Your task to perform on an android device: How big is the moon? Image 0: 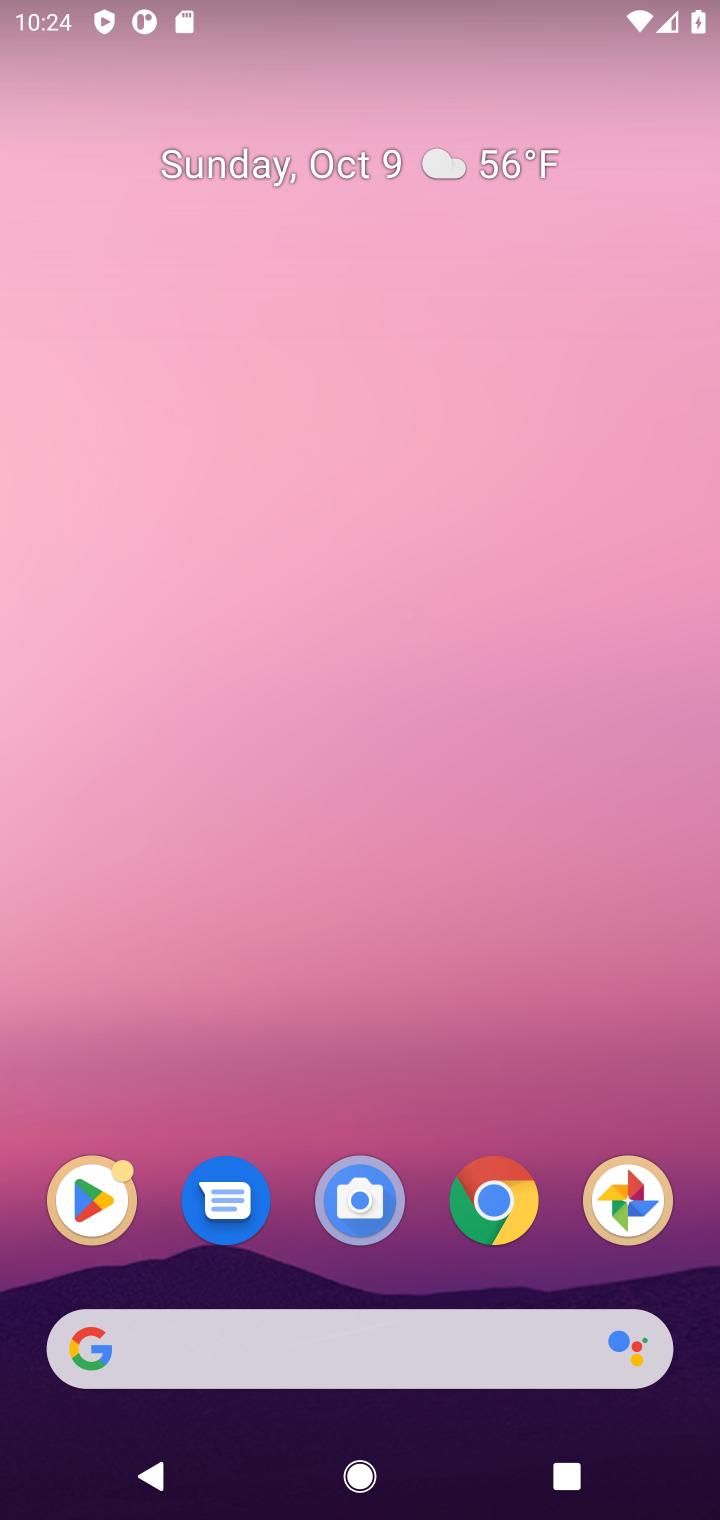
Step 0: drag from (442, 1321) to (411, 321)
Your task to perform on an android device: How big is the moon? Image 1: 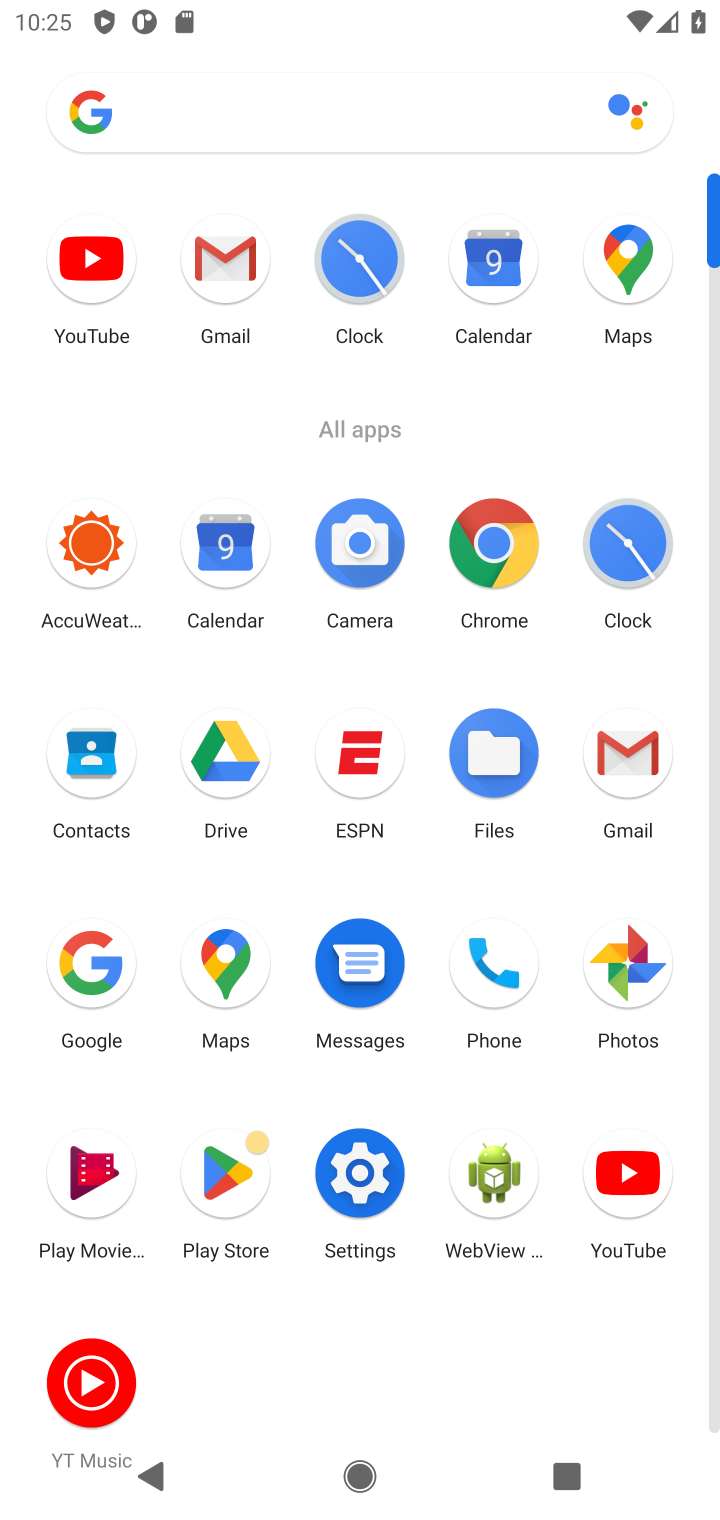
Step 1: click (476, 553)
Your task to perform on an android device: How big is the moon? Image 2: 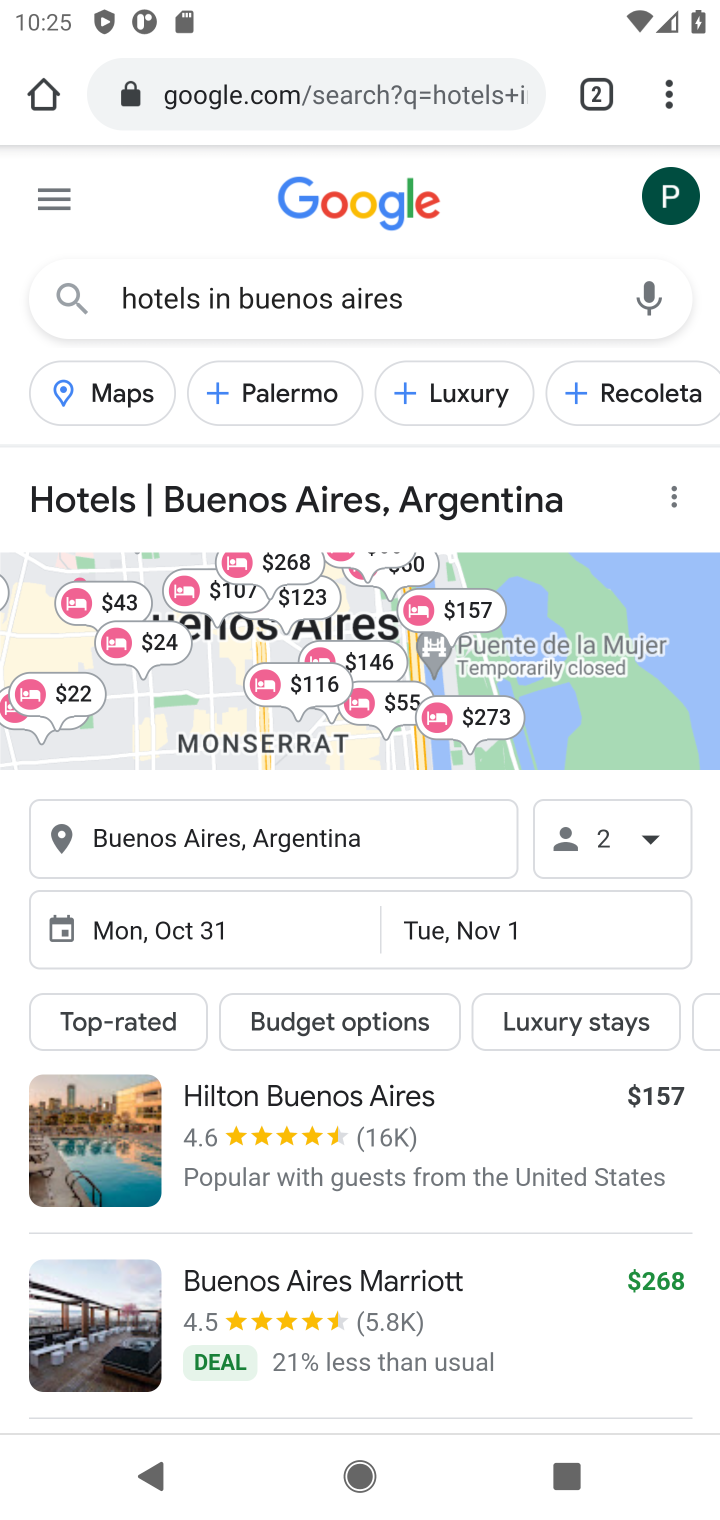
Step 2: click (397, 287)
Your task to perform on an android device: How big is the moon? Image 3: 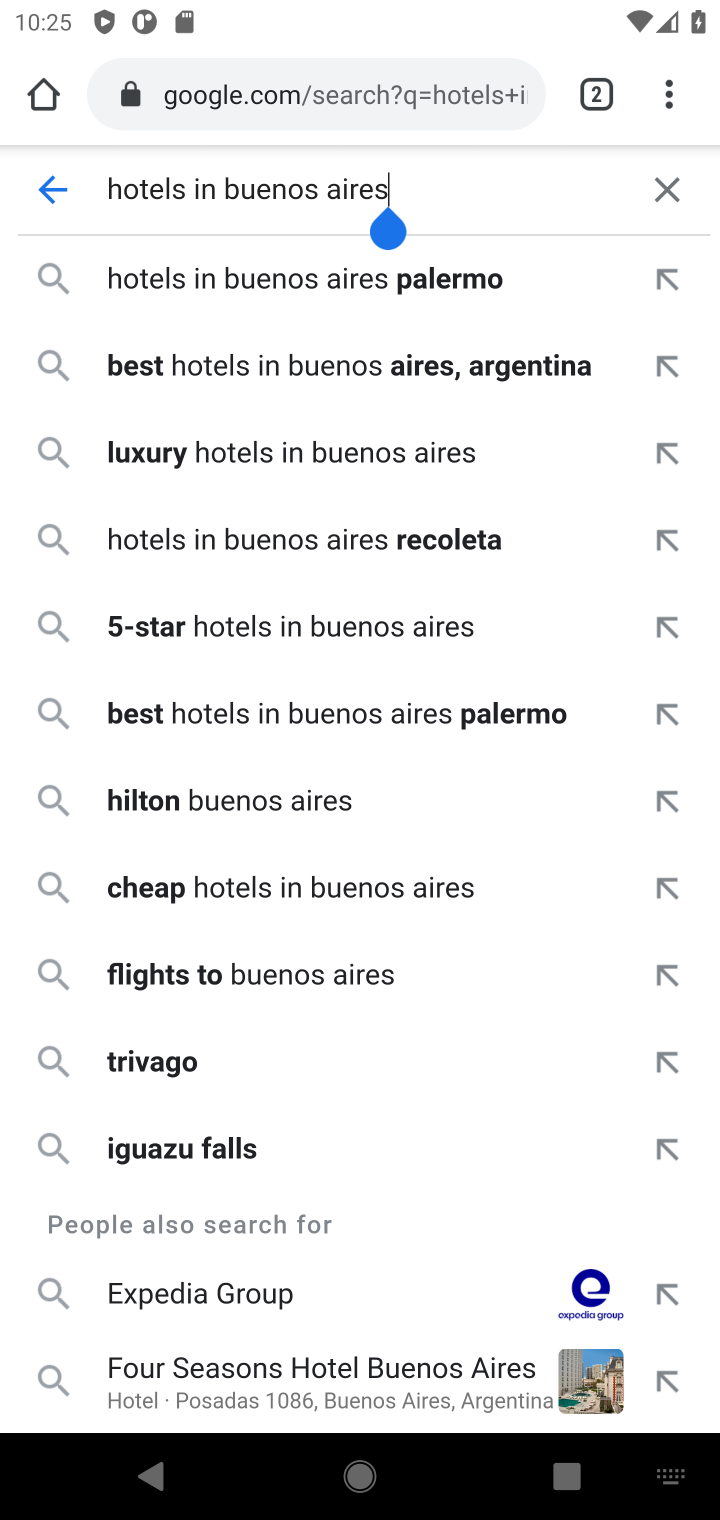
Step 3: click (663, 187)
Your task to perform on an android device: How big is the moon? Image 4: 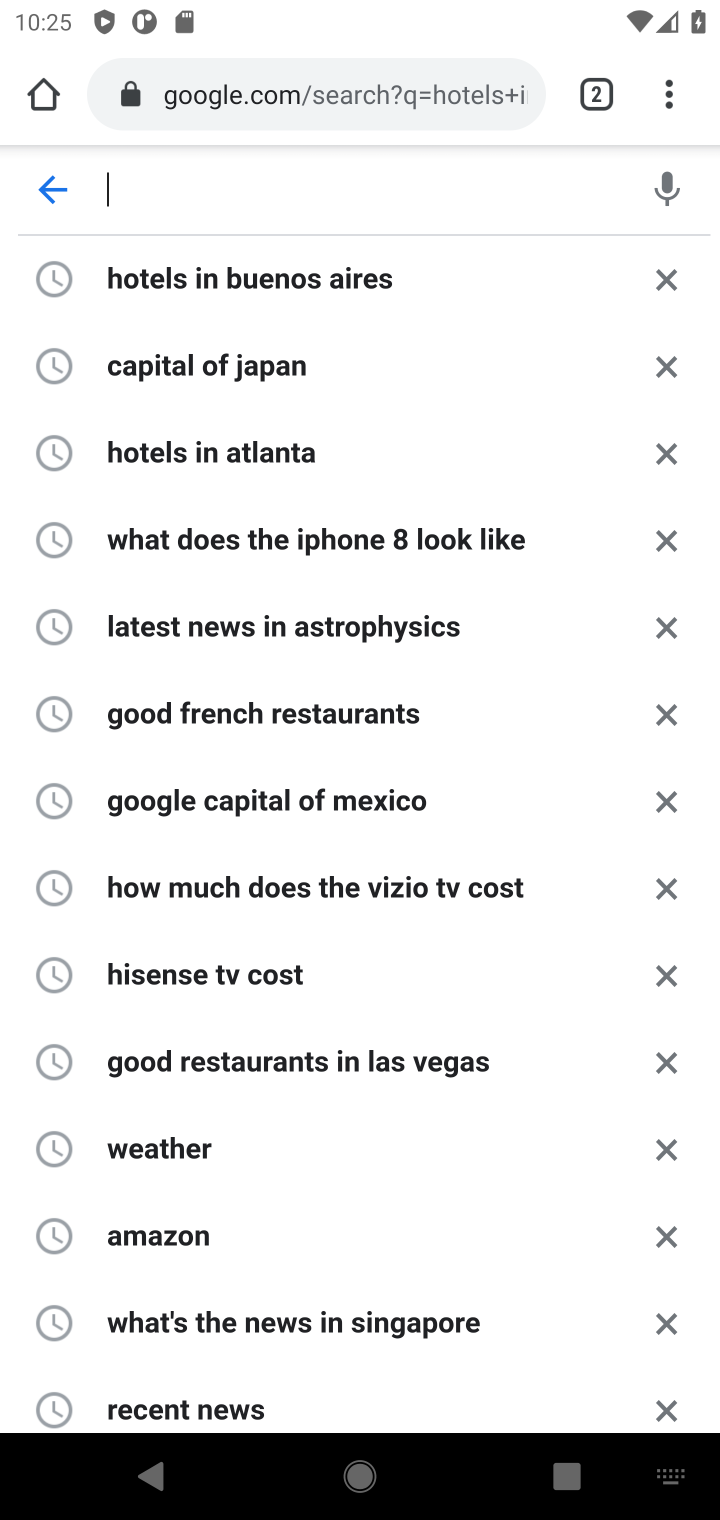
Step 4: type "how big is the moon"
Your task to perform on an android device: How big is the moon? Image 5: 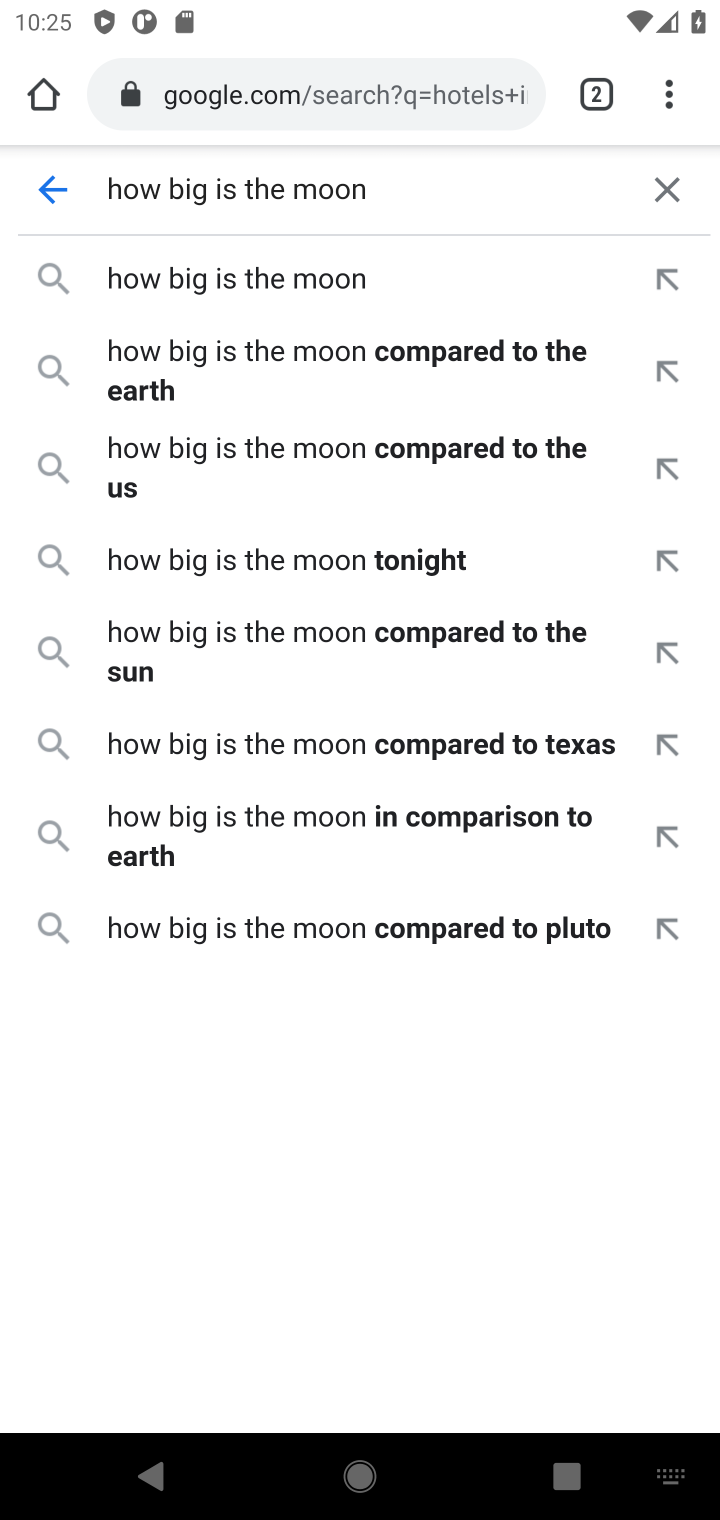
Step 5: click (289, 276)
Your task to perform on an android device: How big is the moon? Image 6: 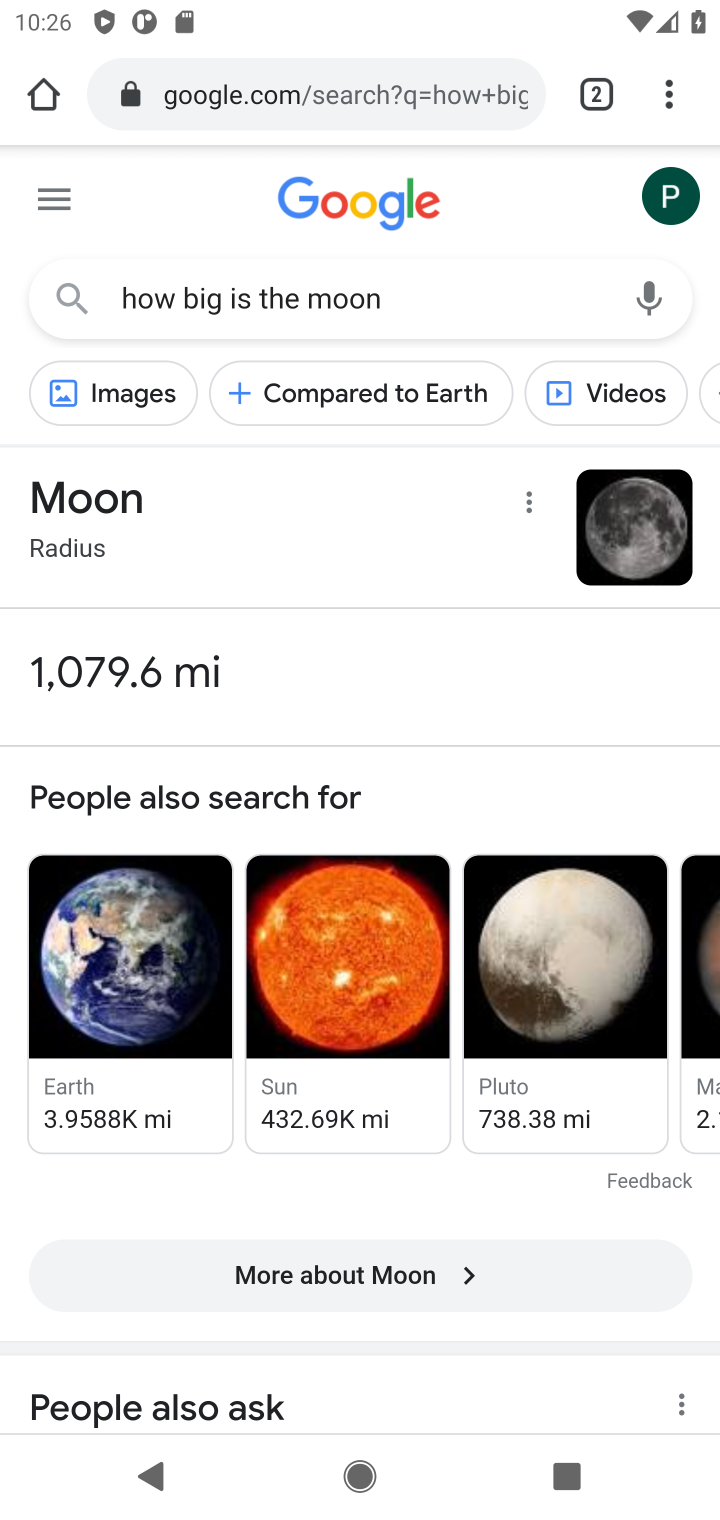
Step 6: task complete